Your task to perform on an android device: turn off picture-in-picture Image 0: 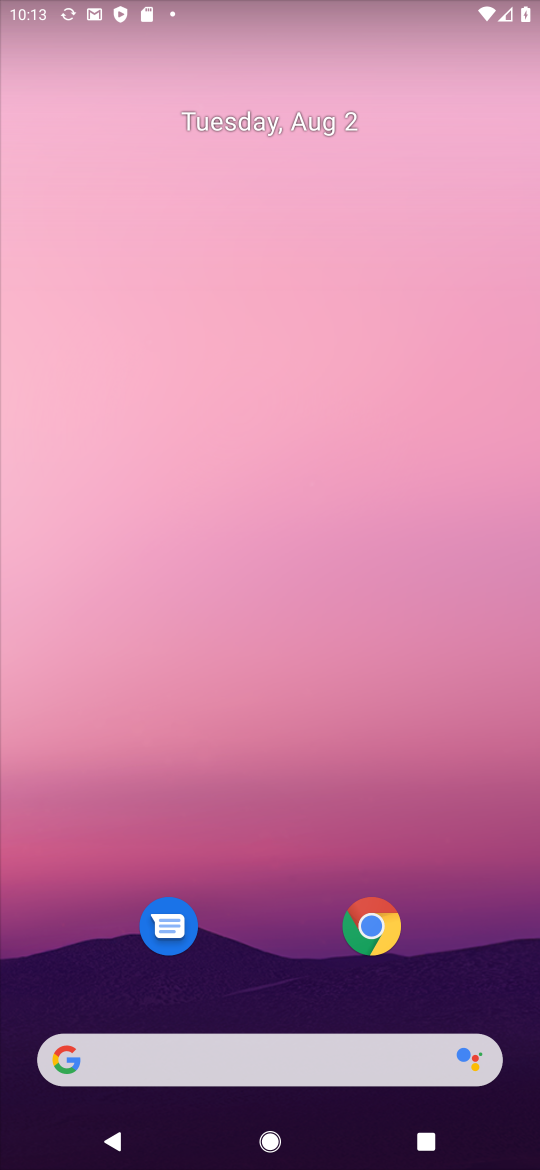
Step 0: click (377, 941)
Your task to perform on an android device: turn off picture-in-picture Image 1: 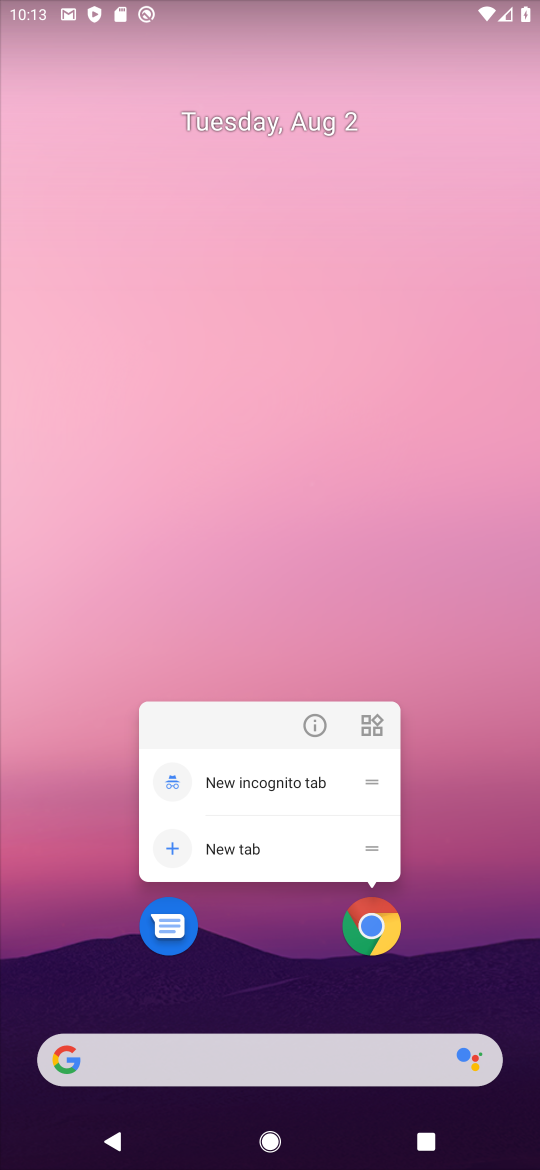
Step 1: click (317, 726)
Your task to perform on an android device: turn off picture-in-picture Image 2: 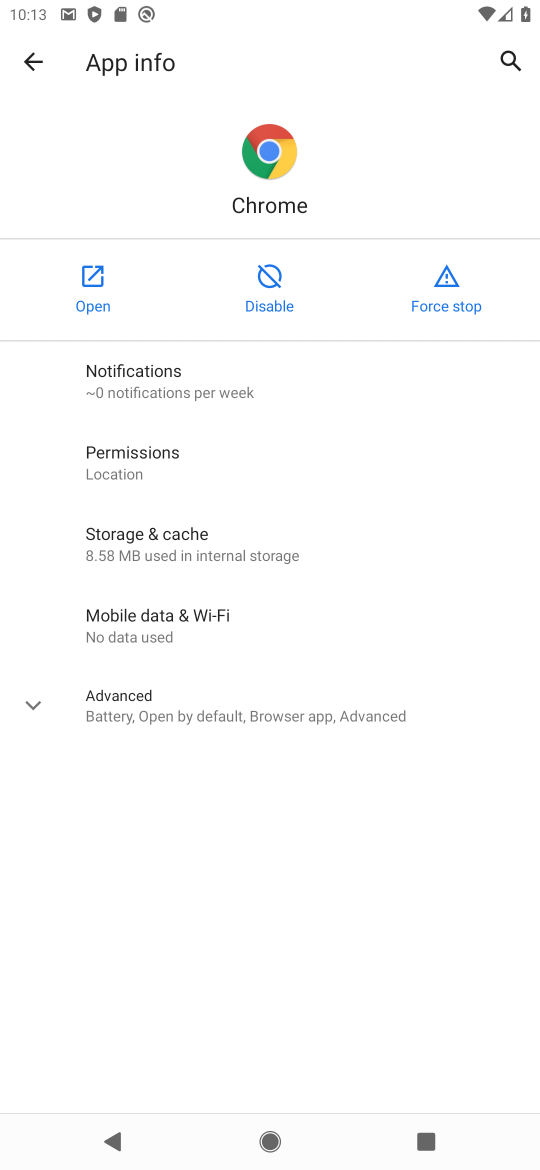
Step 2: click (286, 702)
Your task to perform on an android device: turn off picture-in-picture Image 3: 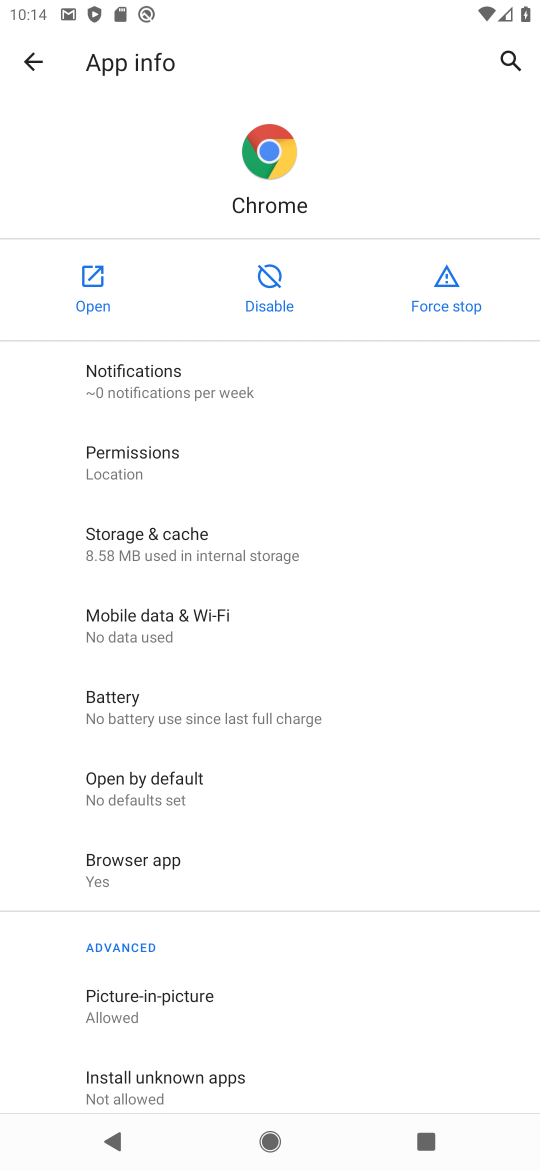
Step 3: click (240, 1030)
Your task to perform on an android device: turn off picture-in-picture Image 4: 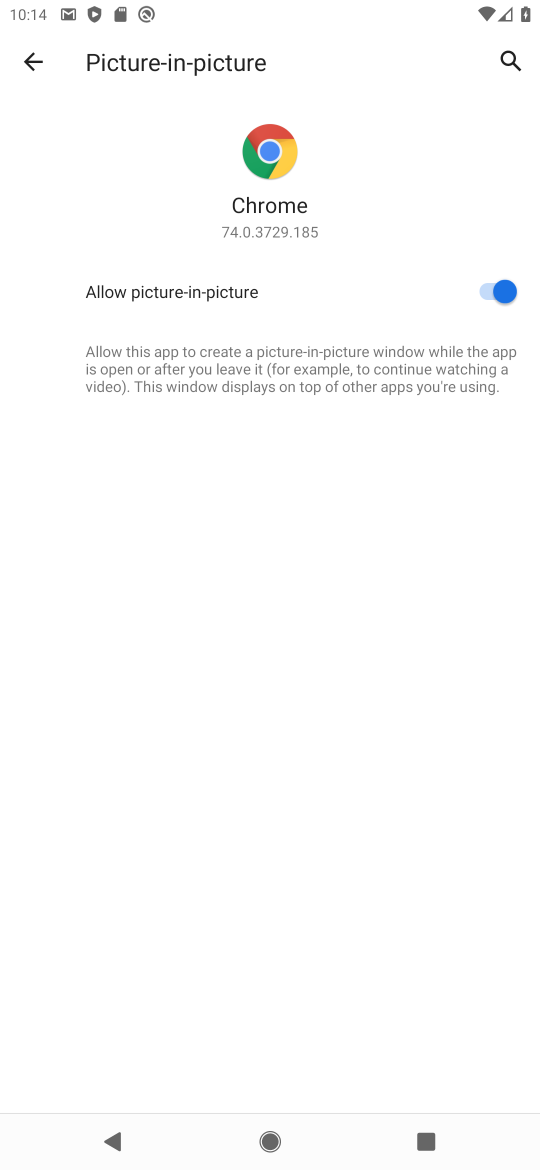
Step 4: click (499, 283)
Your task to perform on an android device: turn off picture-in-picture Image 5: 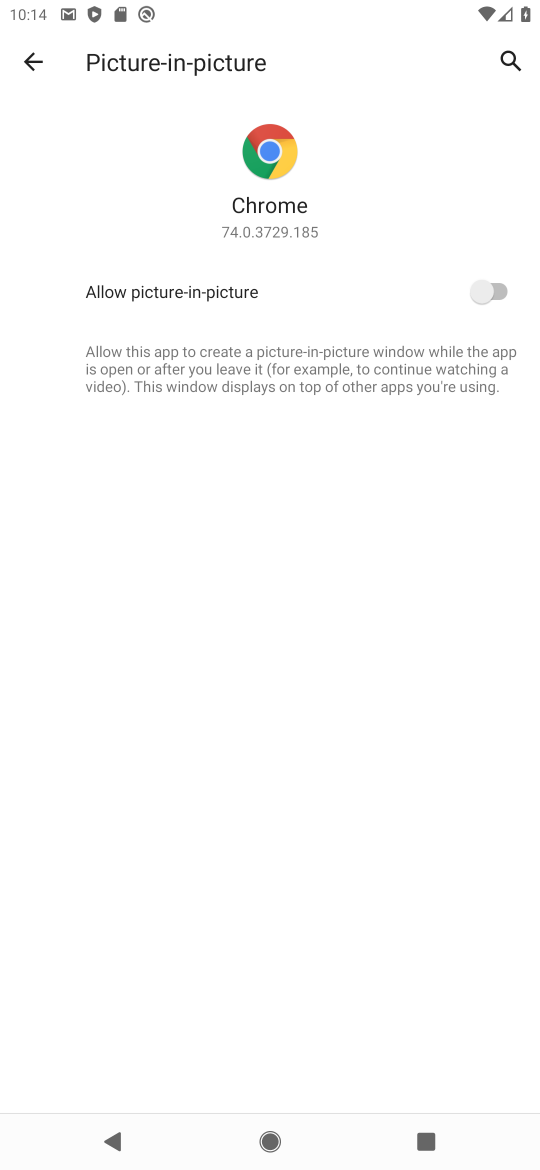
Step 5: task complete